Your task to perform on an android device: Open Youtube and go to the subscriptions tab Image 0: 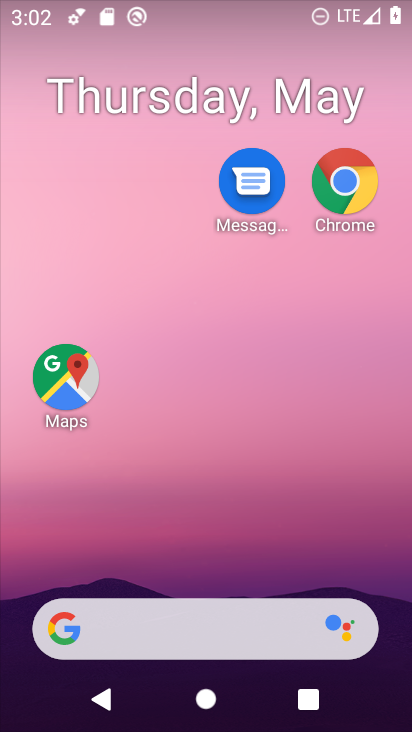
Step 0: drag from (198, 594) to (317, 2)
Your task to perform on an android device: Open Youtube and go to the subscriptions tab Image 1: 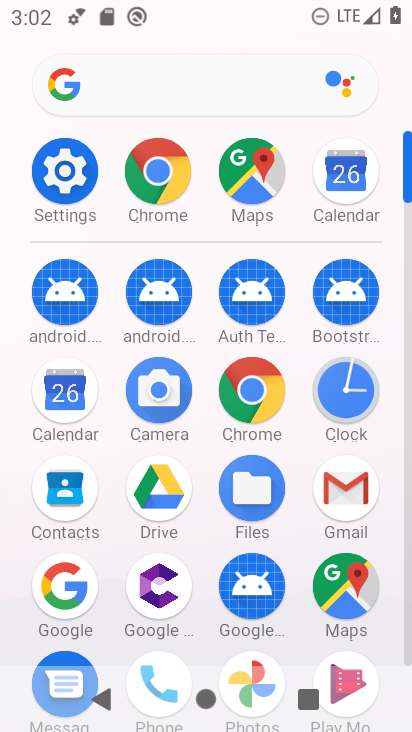
Step 1: drag from (292, 609) to (308, 119)
Your task to perform on an android device: Open Youtube and go to the subscriptions tab Image 2: 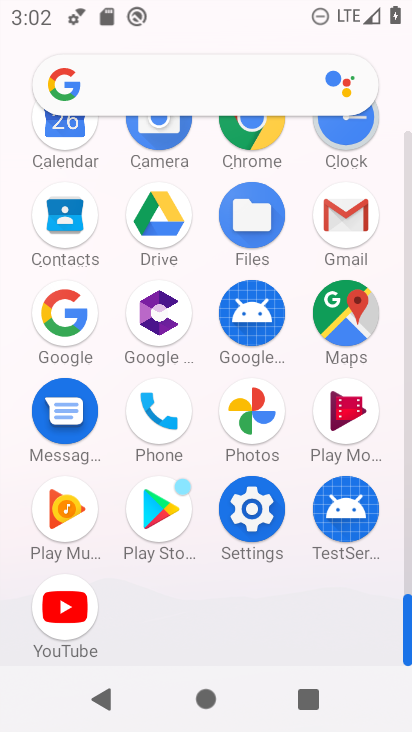
Step 2: click (68, 616)
Your task to perform on an android device: Open Youtube and go to the subscriptions tab Image 3: 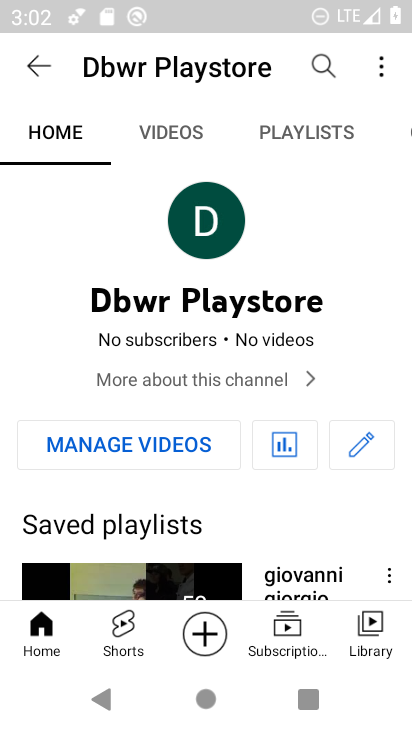
Step 3: click (300, 635)
Your task to perform on an android device: Open Youtube and go to the subscriptions tab Image 4: 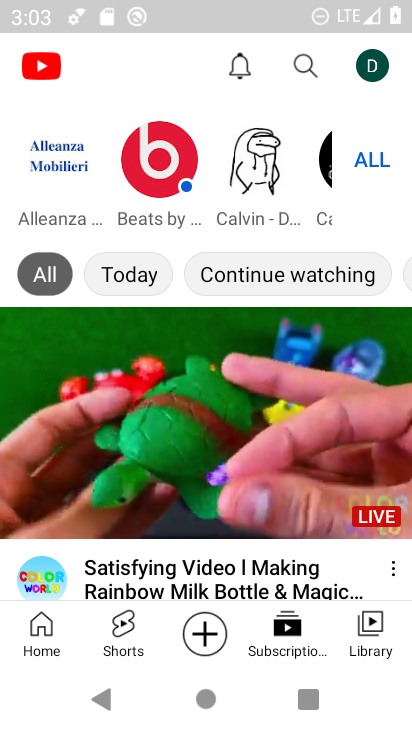
Step 4: task complete